Your task to perform on an android device: Go to network settings Image 0: 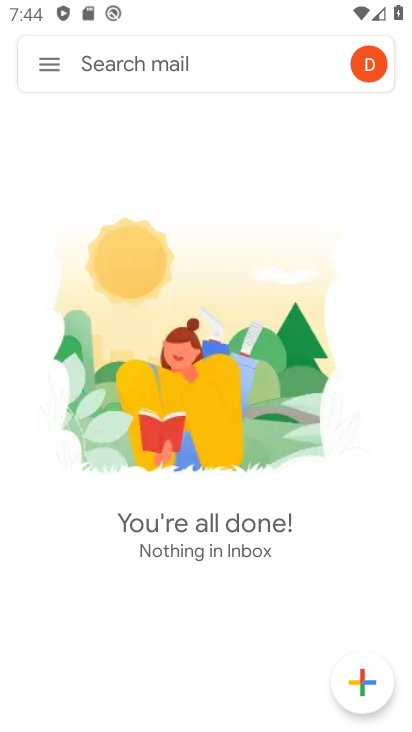
Step 0: press home button
Your task to perform on an android device: Go to network settings Image 1: 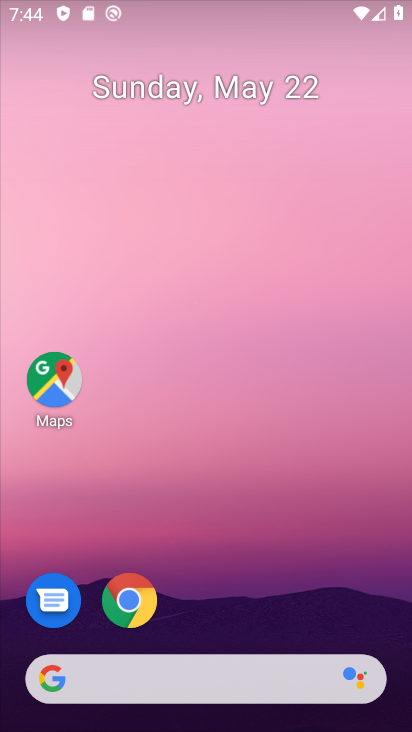
Step 1: drag from (195, 630) to (235, 255)
Your task to perform on an android device: Go to network settings Image 2: 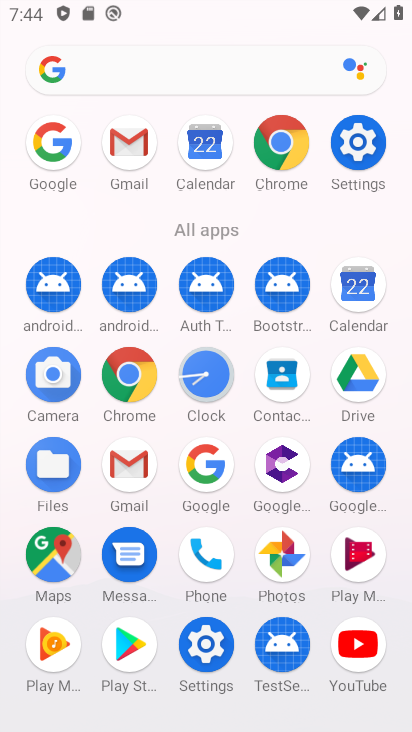
Step 2: click (354, 135)
Your task to perform on an android device: Go to network settings Image 3: 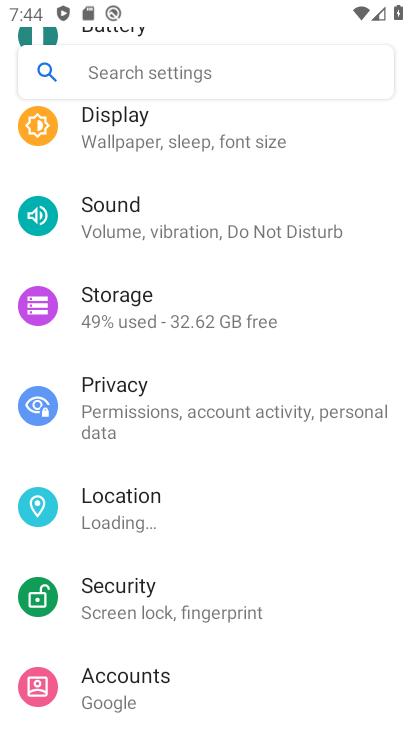
Step 3: drag from (230, 120) to (261, 532)
Your task to perform on an android device: Go to network settings Image 4: 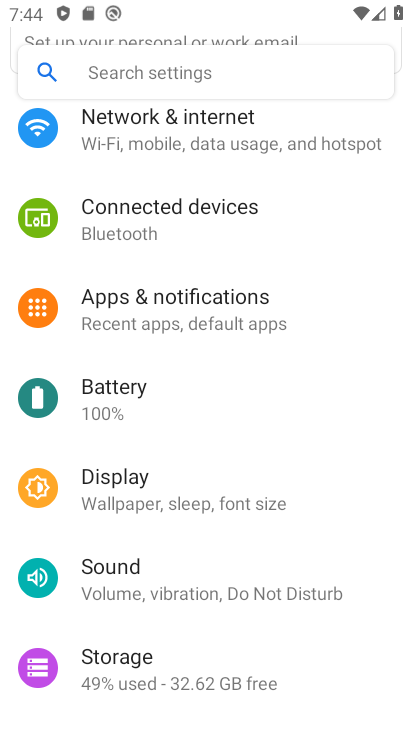
Step 4: click (256, 135)
Your task to perform on an android device: Go to network settings Image 5: 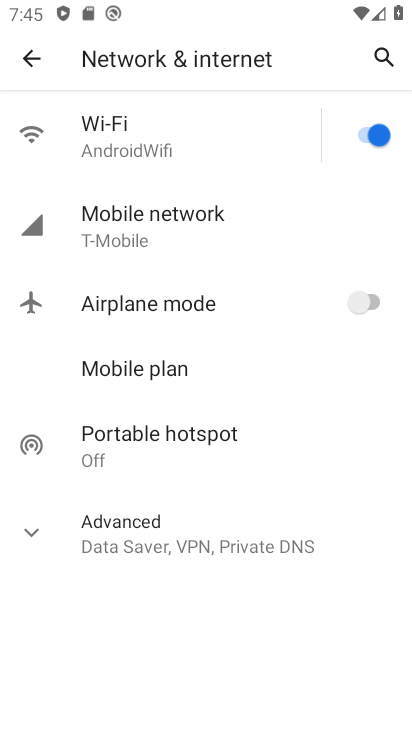
Step 5: click (138, 537)
Your task to perform on an android device: Go to network settings Image 6: 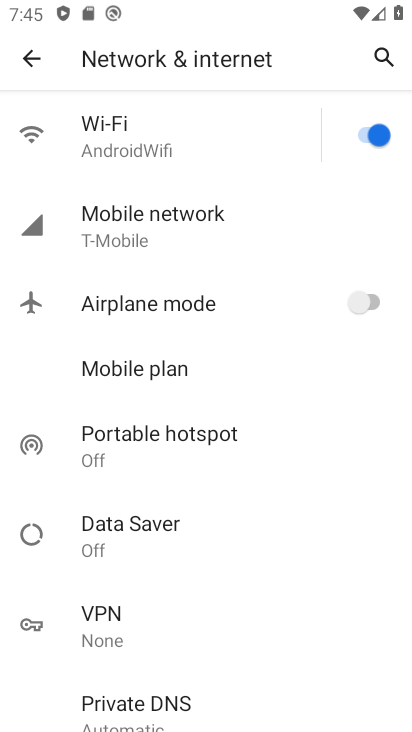
Step 6: click (175, 219)
Your task to perform on an android device: Go to network settings Image 7: 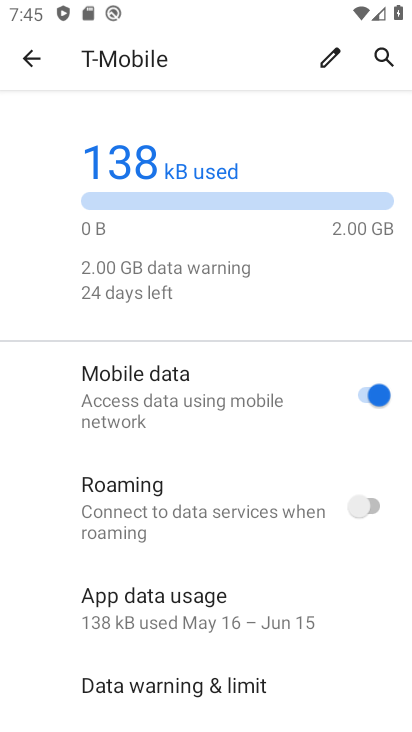
Step 7: task complete